Your task to perform on an android device: show emergency info Image 0: 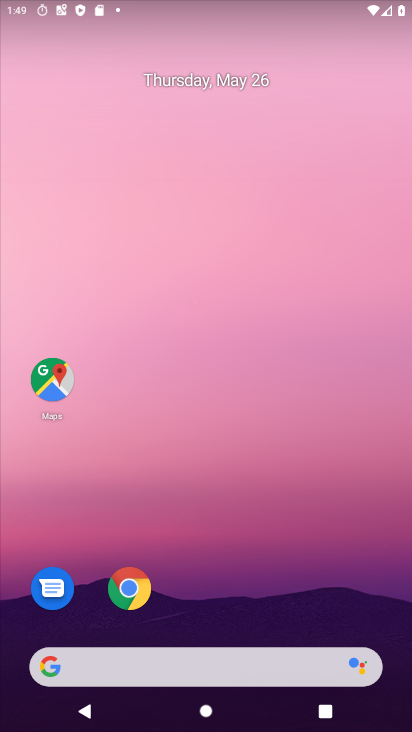
Step 0: drag from (393, 711) to (358, 144)
Your task to perform on an android device: show emergency info Image 1: 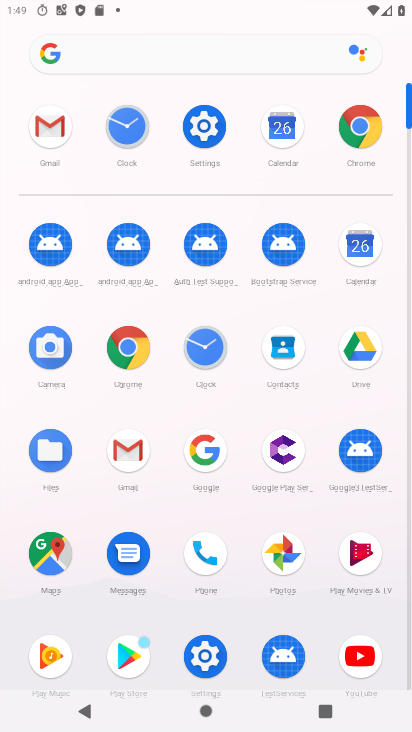
Step 1: click (192, 126)
Your task to perform on an android device: show emergency info Image 2: 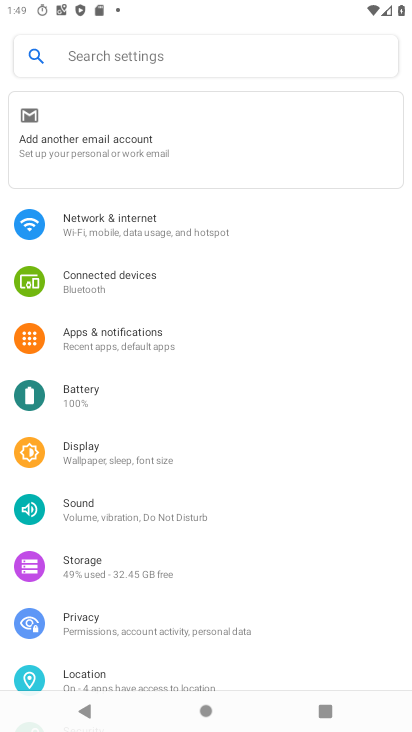
Step 2: drag from (294, 657) to (269, 336)
Your task to perform on an android device: show emergency info Image 3: 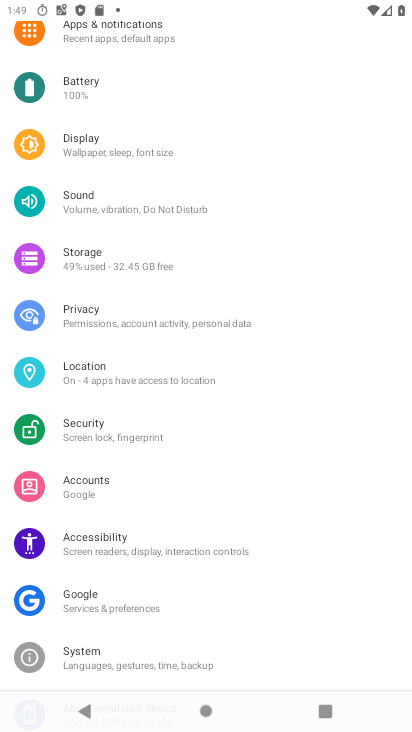
Step 3: drag from (324, 620) to (311, 376)
Your task to perform on an android device: show emergency info Image 4: 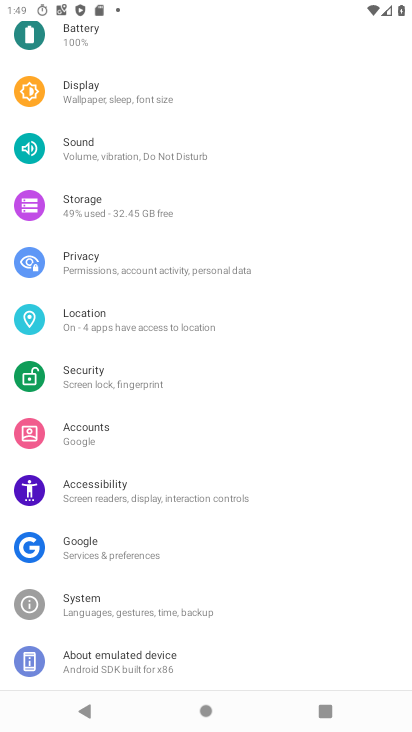
Step 4: click (75, 657)
Your task to perform on an android device: show emergency info Image 5: 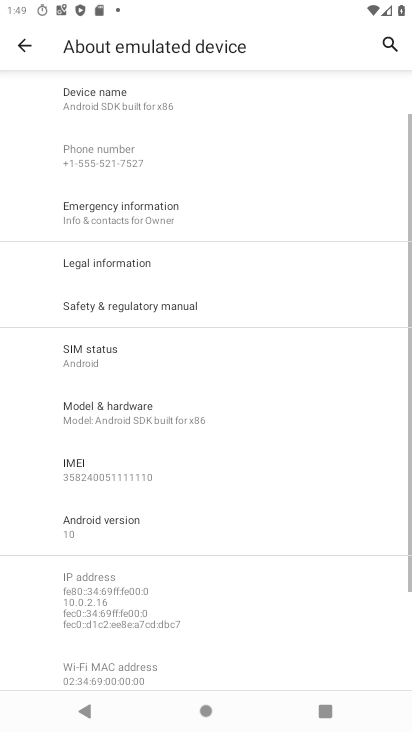
Step 5: click (135, 216)
Your task to perform on an android device: show emergency info Image 6: 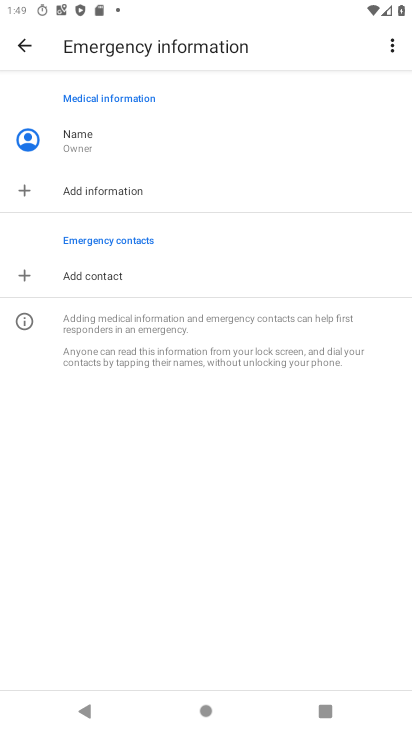
Step 6: task complete